Your task to perform on an android device: turn on bluetooth scan Image 0: 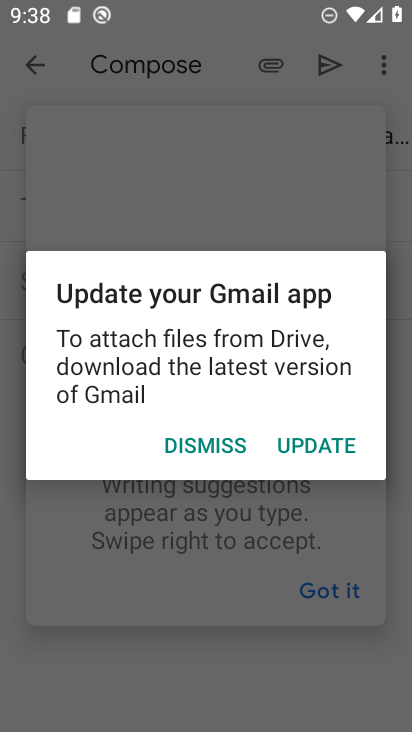
Step 0: press home button
Your task to perform on an android device: turn on bluetooth scan Image 1: 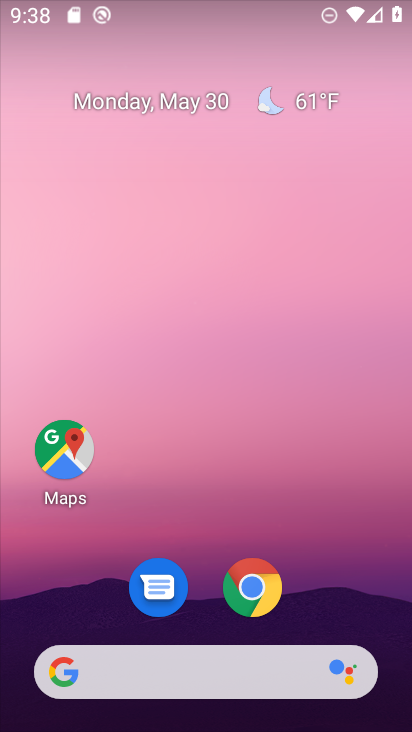
Step 1: drag from (222, 635) to (193, 107)
Your task to perform on an android device: turn on bluetooth scan Image 2: 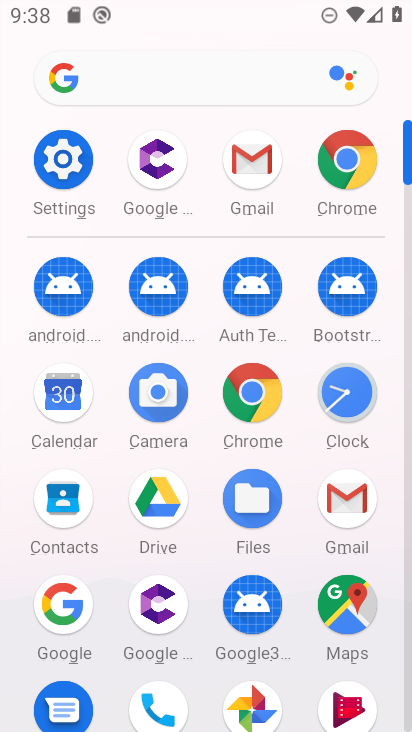
Step 2: click (71, 164)
Your task to perform on an android device: turn on bluetooth scan Image 3: 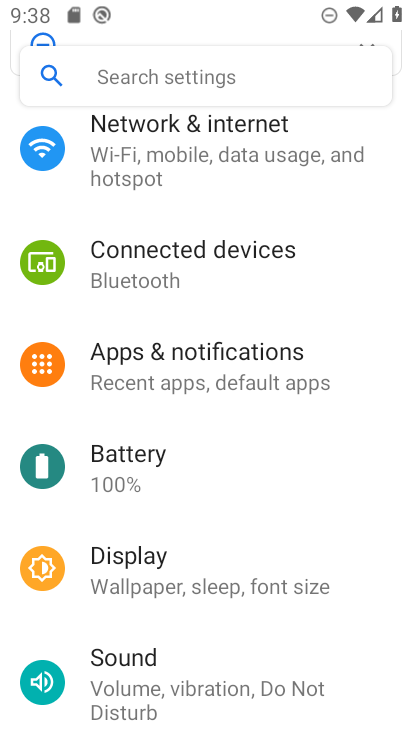
Step 3: drag from (191, 251) to (191, 667)
Your task to perform on an android device: turn on bluetooth scan Image 4: 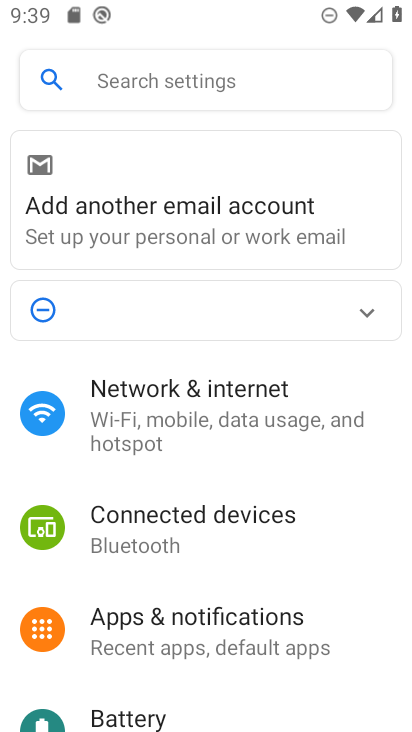
Step 4: drag from (204, 626) to (170, 137)
Your task to perform on an android device: turn on bluetooth scan Image 5: 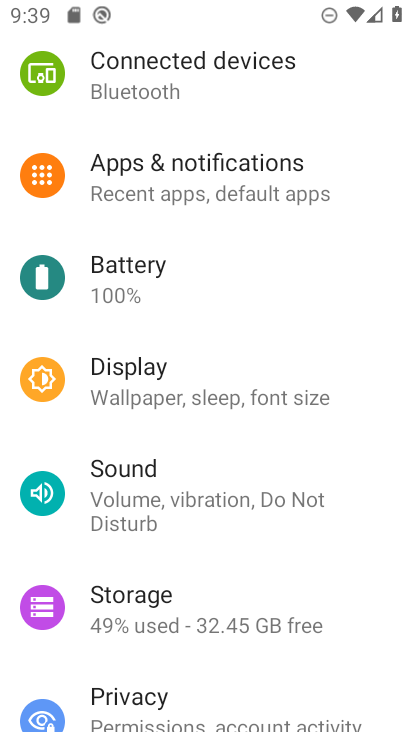
Step 5: drag from (192, 465) to (192, 53)
Your task to perform on an android device: turn on bluetooth scan Image 6: 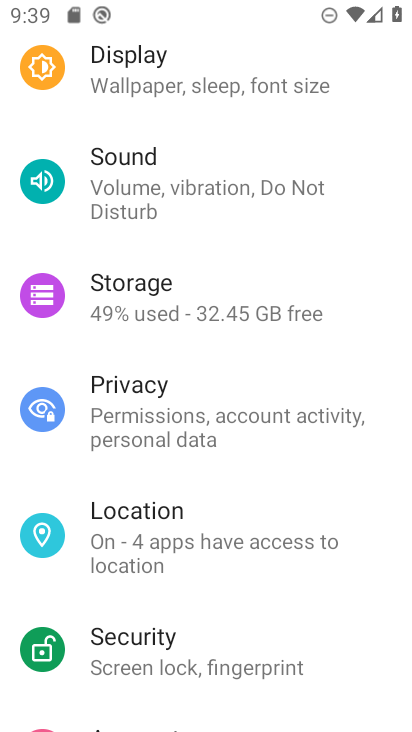
Step 6: click (188, 538)
Your task to perform on an android device: turn on bluetooth scan Image 7: 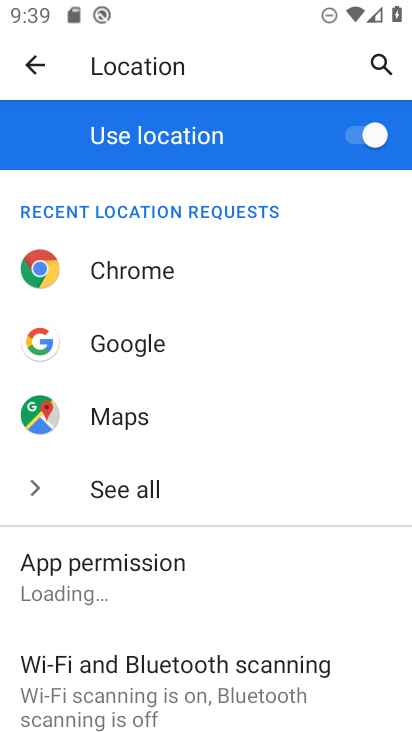
Step 7: click (186, 690)
Your task to perform on an android device: turn on bluetooth scan Image 8: 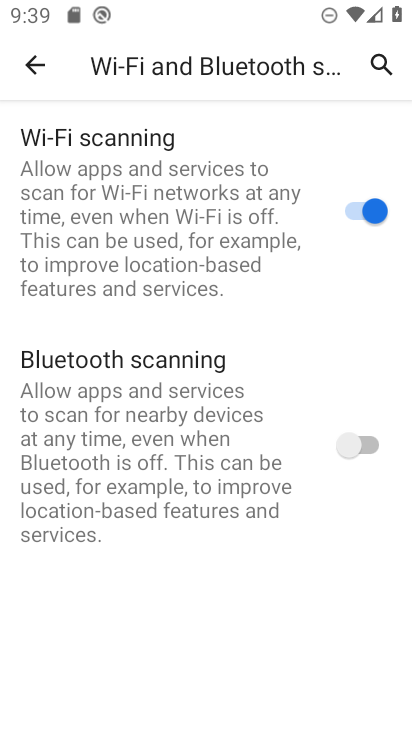
Step 8: click (362, 454)
Your task to perform on an android device: turn on bluetooth scan Image 9: 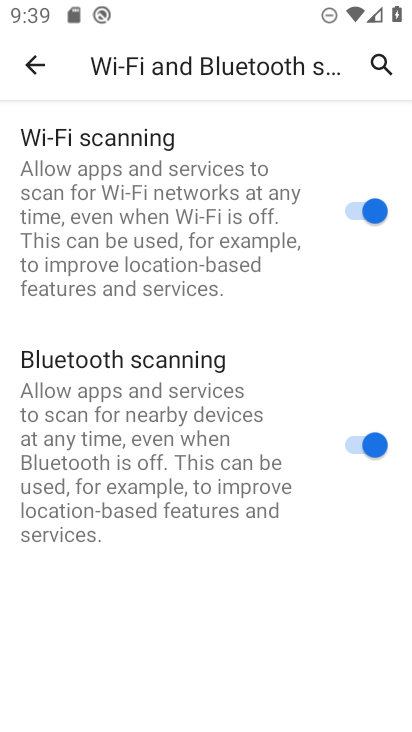
Step 9: task complete